Your task to perform on an android device: change notifications settings Image 0: 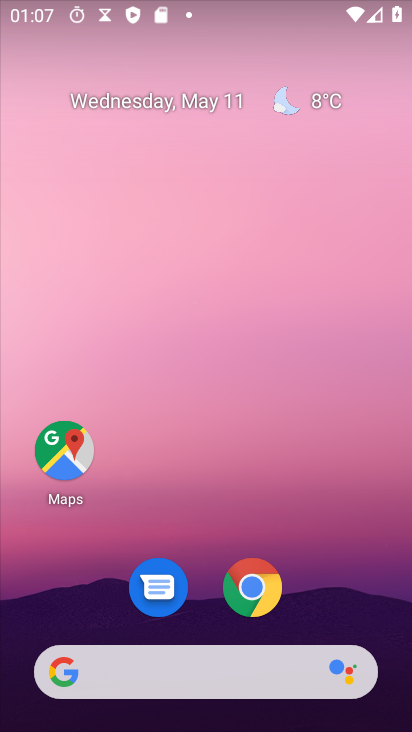
Step 0: drag from (299, 504) to (129, 228)
Your task to perform on an android device: change notifications settings Image 1: 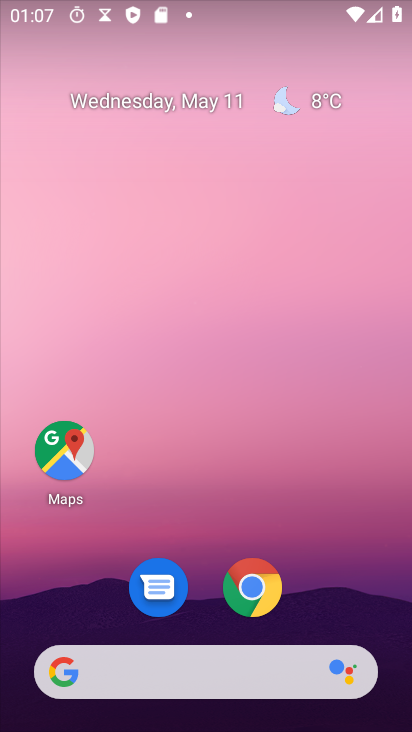
Step 1: drag from (293, 461) to (74, 15)
Your task to perform on an android device: change notifications settings Image 2: 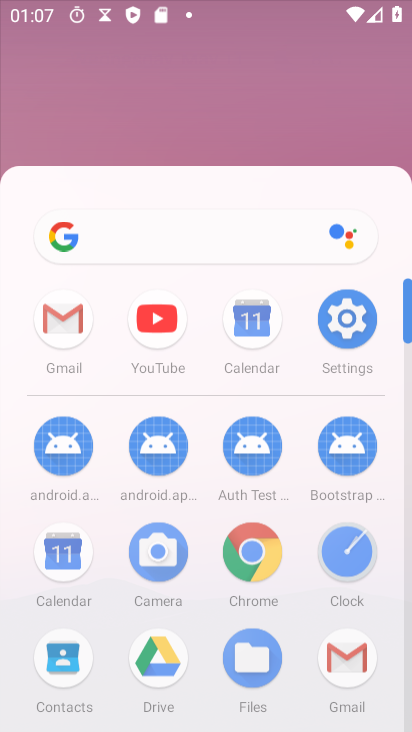
Step 2: drag from (306, 469) to (49, 21)
Your task to perform on an android device: change notifications settings Image 3: 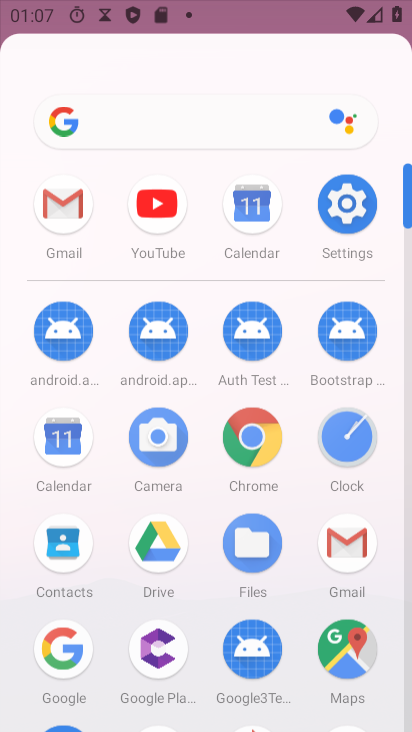
Step 3: click (349, 149)
Your task to perform on an android device: change notifications settings Image 4: 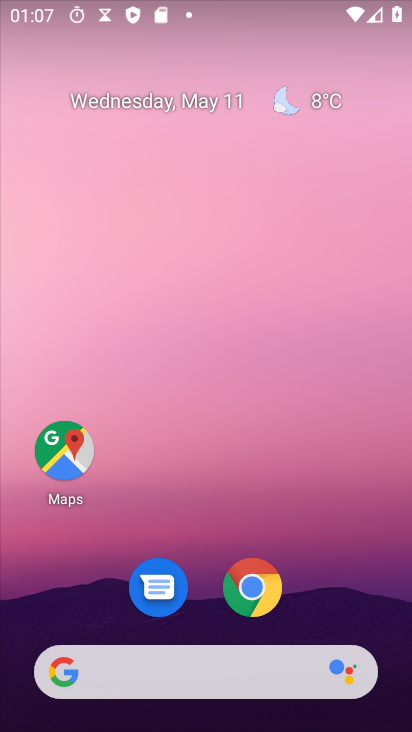
Step 4: click (350, 147)
Your task to perform on an android device: change notifications settings Image 5: 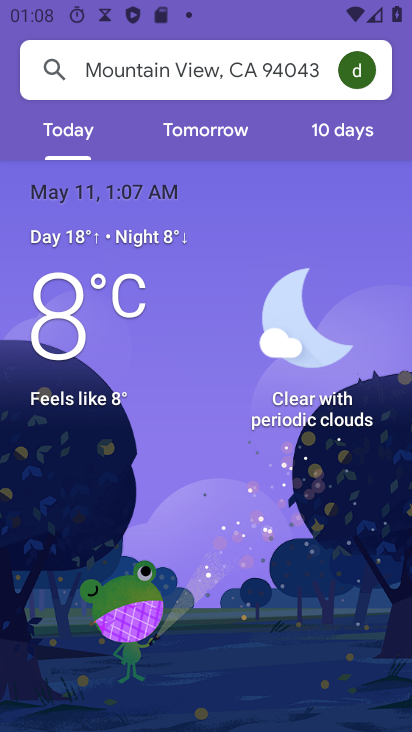
Step 5: task complete